Your task to perform on an android device: Open notification settings Image 0: 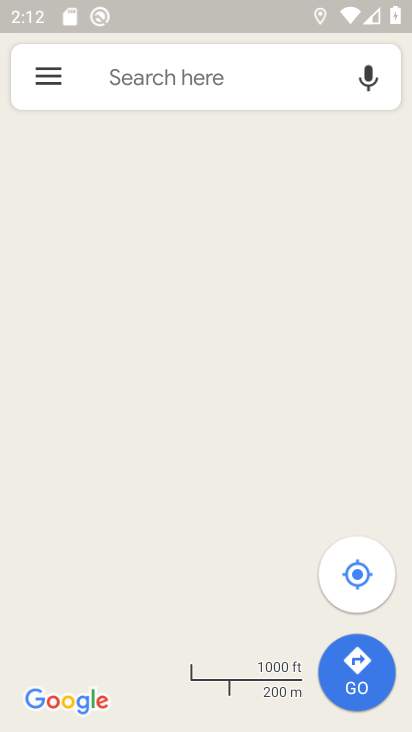
Step 0: press home button
Your task to perform on an android device: Open notification settings Image 1: 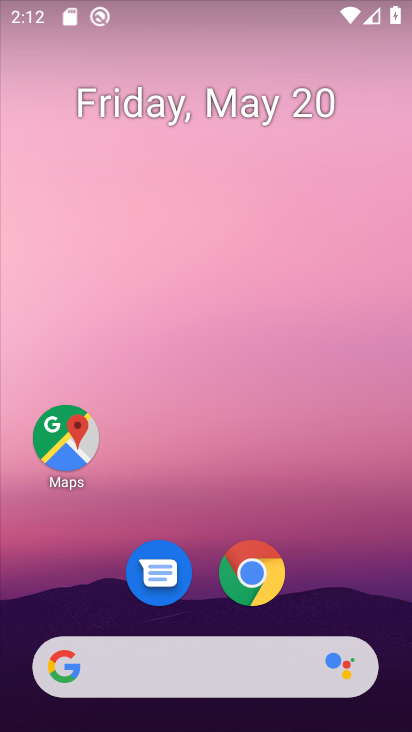
Step 1: drag from (207, 618) to (202, 219)
Your task to perform on an android device: Open notification settings Image 2: 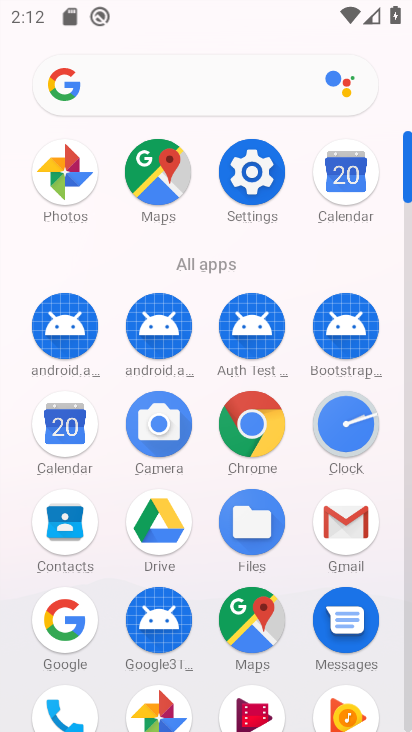
Step 2: click (263, 195)
Your task to perform on an android device: Open notification settings Image 3: 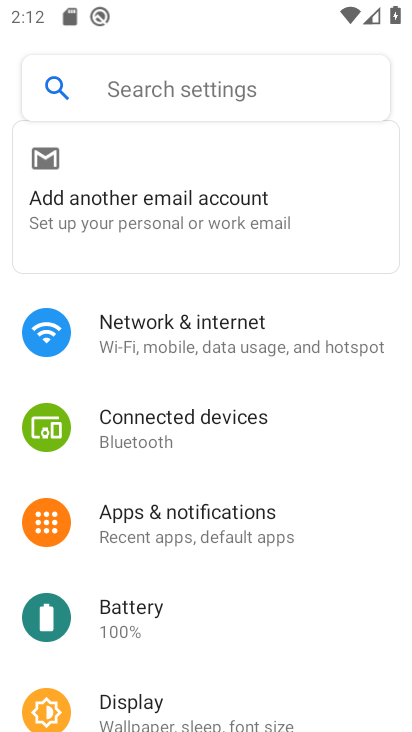
Step 3: click (261, 521)
Your task to perform on an android device: Open notification settings Image 4: 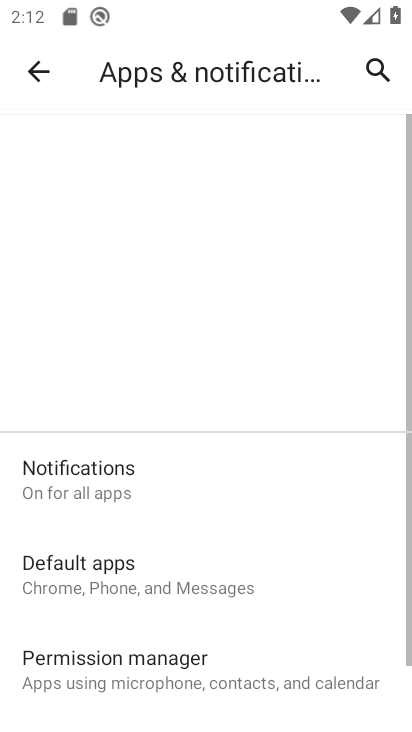
Step 4: click (151, 491)
Your task to perform on an android device: Open notification settings Image 5: 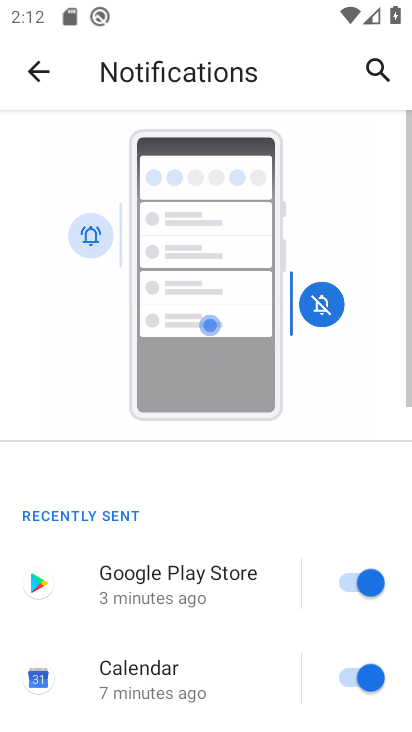
Step 5: drag from (184, 574) to (215, 170)
Your task to perform on an android device: Open notification settings Image 6: 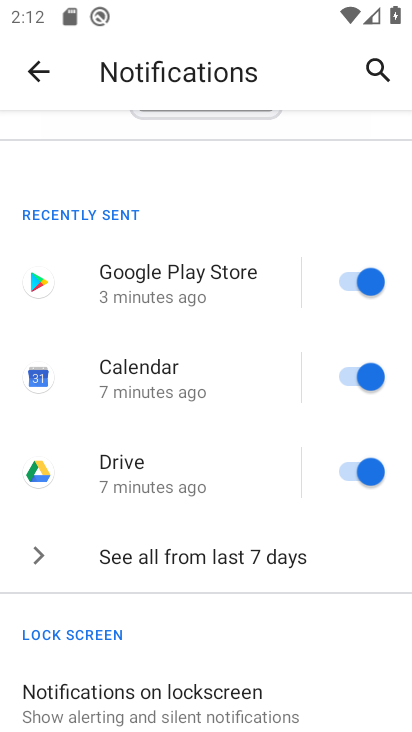
Step 6: drag from (222, 624) to (261, 284)
Your task to perform on an android device: Open notification settings Image 7: 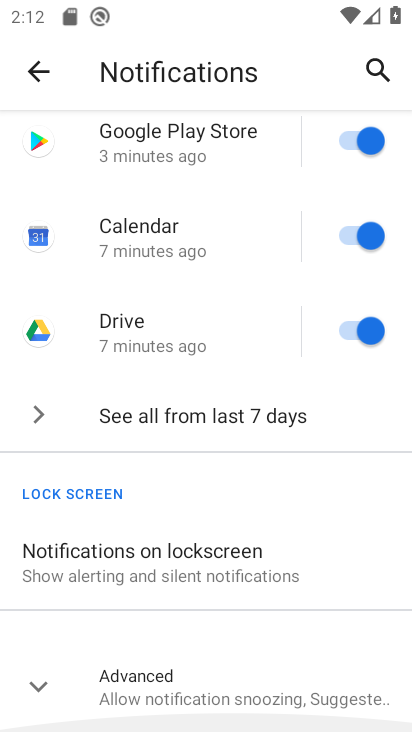
Step 7: drag from (242, 605) to (247, 289)
Your task to perform on an android device: Open notification settings Image 8: 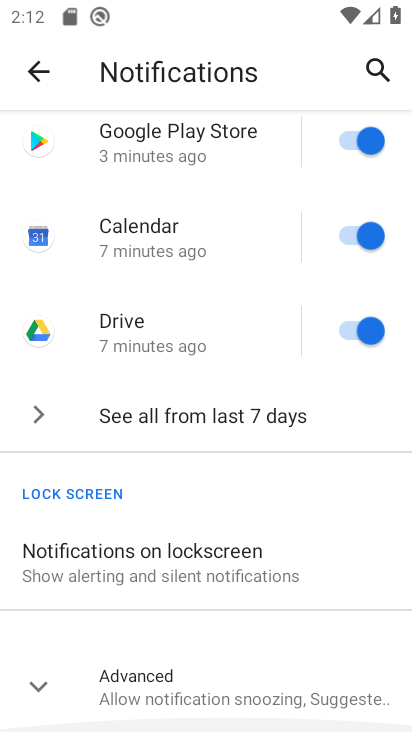
Step 8: drag from (247, 591) to (254, 300)
Your task to perform on an android device: Open notification settings Image 9: 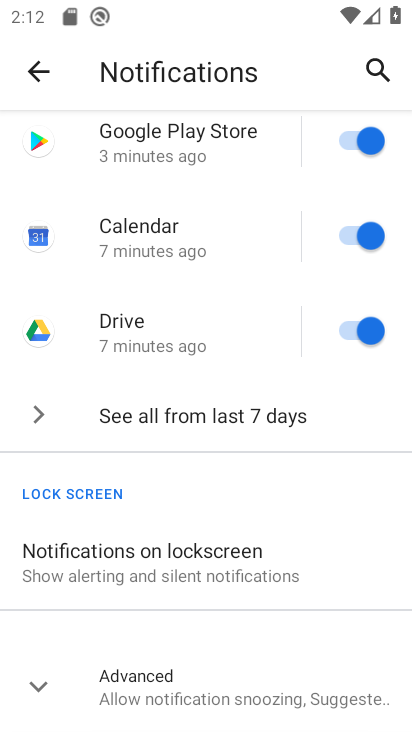
Step 9: click (177, 677)
Your task to perform on an android device: Open notification settings Image 10: 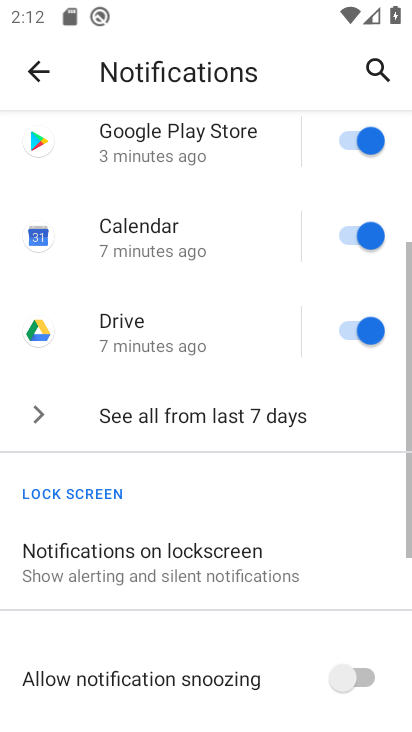
Step 10: task complete